Your task to perform on an android device: turn off notifications in google photos Image 0: 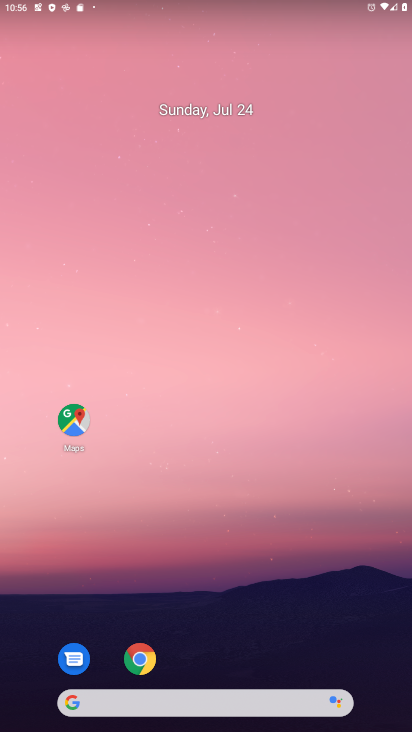
Step 0: drag from (385, 685) to (367, 63)
Your task to perform on an android device: turn off notifications in google photos Image 1: 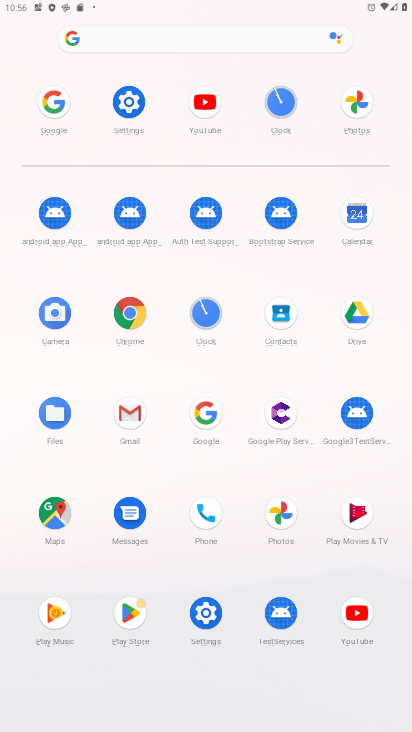
Step 1: click (276, 513)
Your task to perform on an android device: turn off notifications in google photos Image 2: 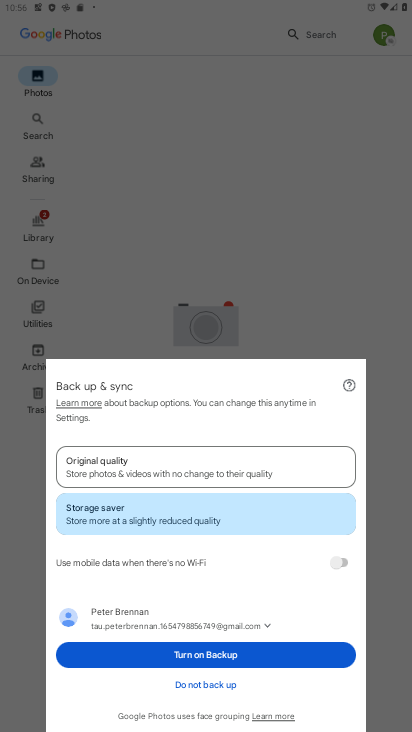
Step 2: task complete